Your task to perform on an android device: Check the weather Image 0: 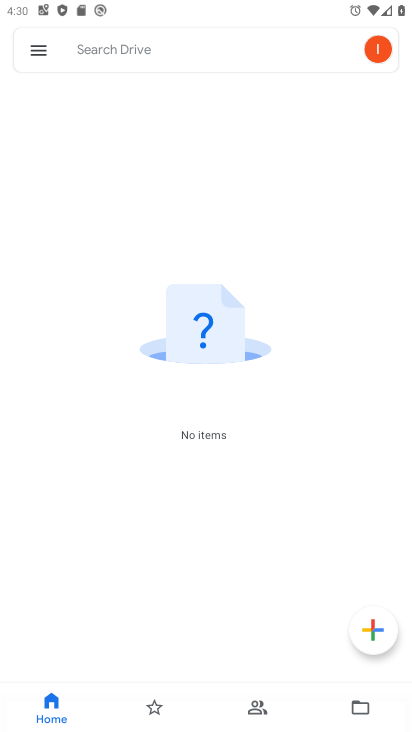
Step 0: press home button
Your task to perform on an android device: Check the weather Image 1: 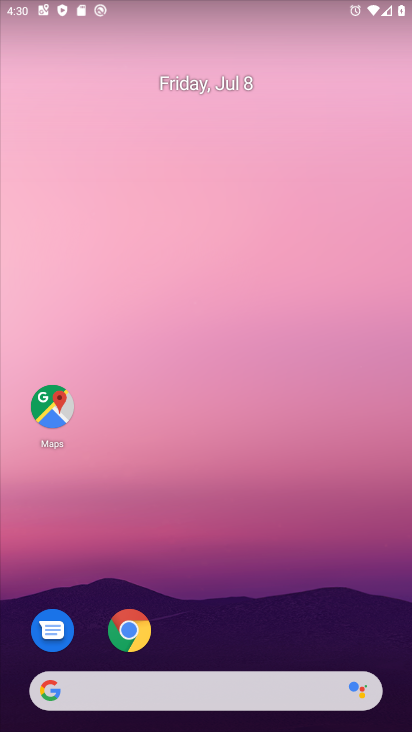
Step 1: drag from (208, 659) to (227, 109)
Your task to perform on an android device: Check the weather Image 2: 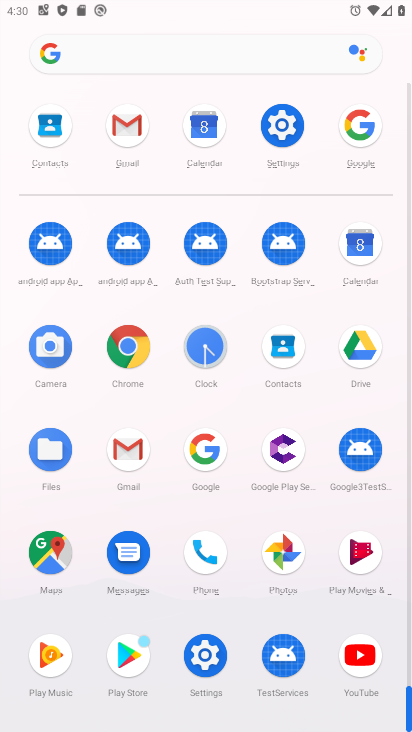
Step 2: click (202, 448)
Your task to perform on an android device: Check the weather Image 3: 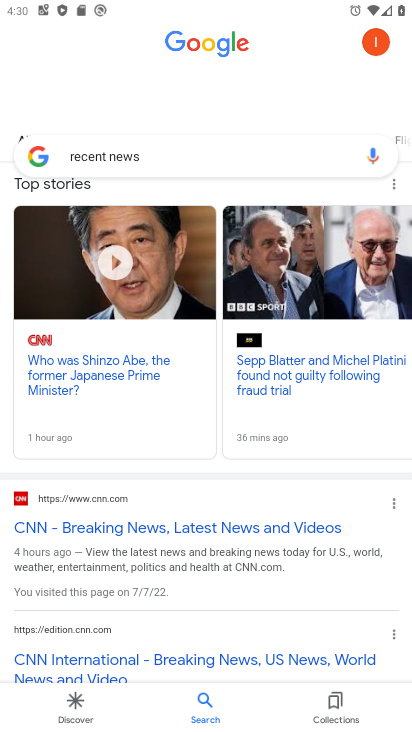
Step 3: click (277, 155)
Your task to perform on an android device: Check the weather Image 4: 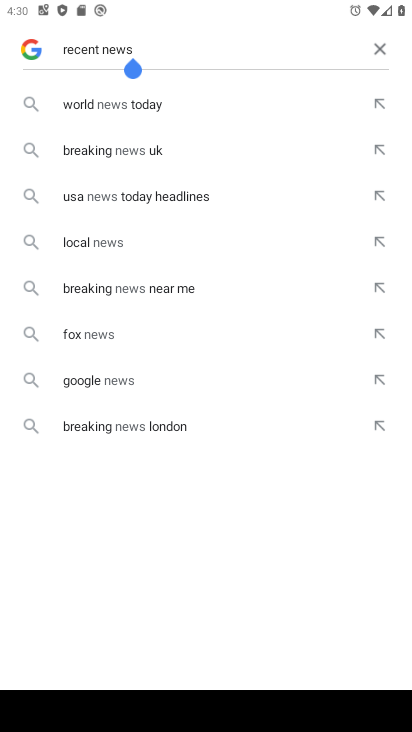
Step 4: click (380, 49)
Your task to perform on an android device: Check the weather Image 5: 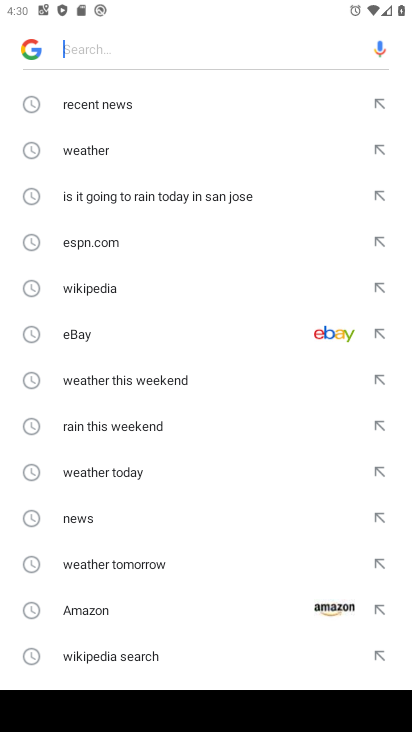
Step 5: click (102, 151)
Your task to perform on an android device: Check the weather Image 6: 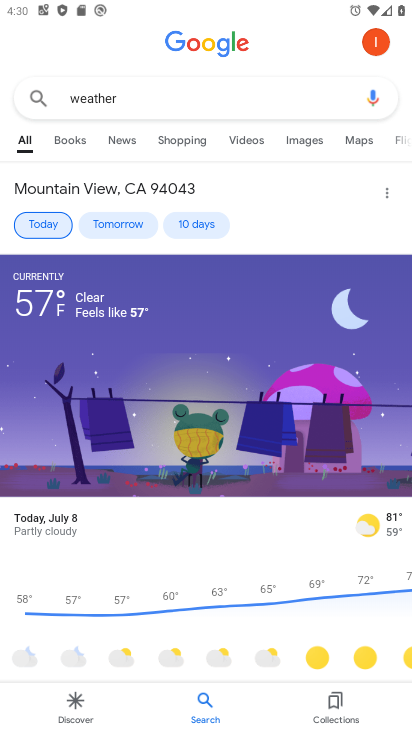
Step 6: task complete